Your task to perform on an android device: See recent photos Image 0: 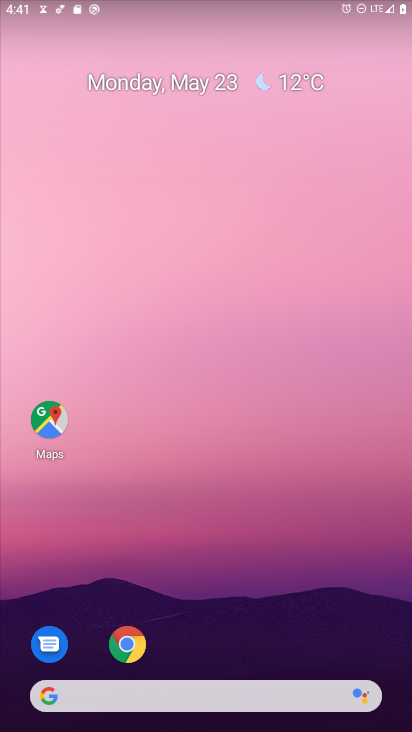
Step 0: drag from (179, 658) to (115, 317)
Your task to perform on an android device: See recent photos Image 1: 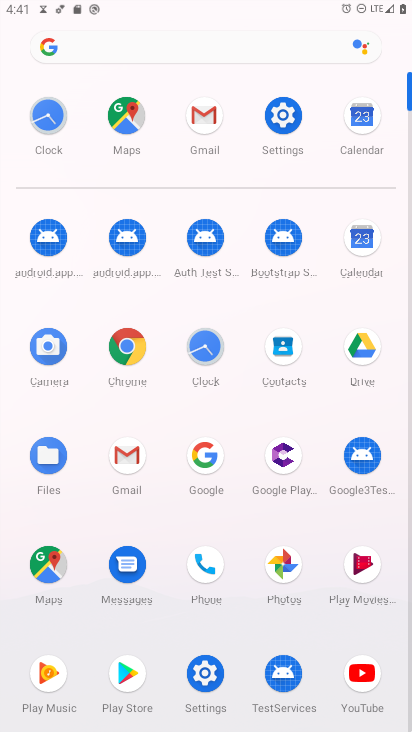
Step 1: click (289, 571)
Your task to perform on an android device: See recent photos Image 2: 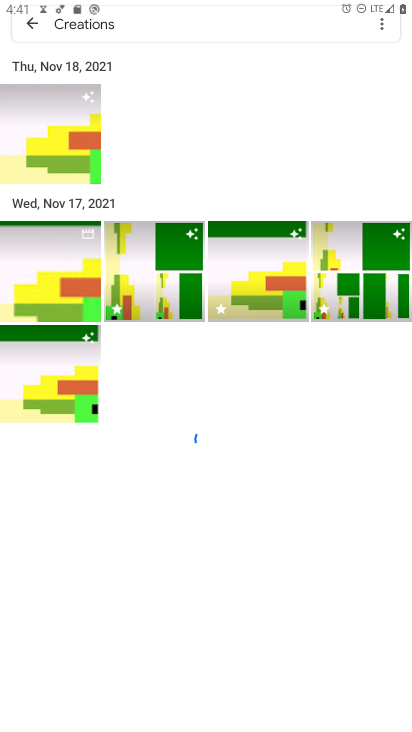
Step 2: click (34, 30)
Your task to perform on an android device: See recent photos Image 3: 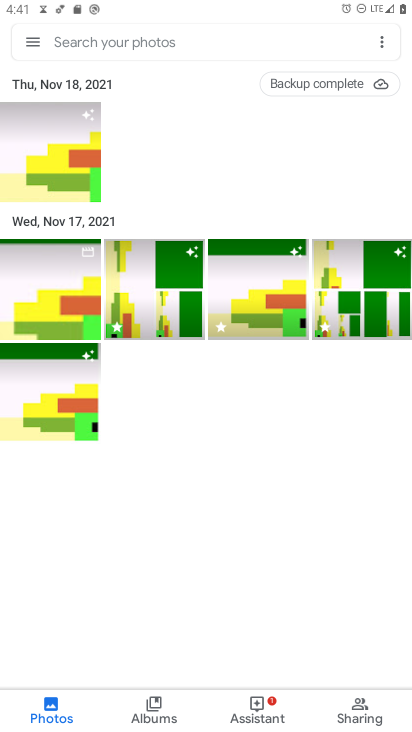
Step 3: task complete